Your task to perform on an android device: toggle notifications settings in the gmail app Image 0: 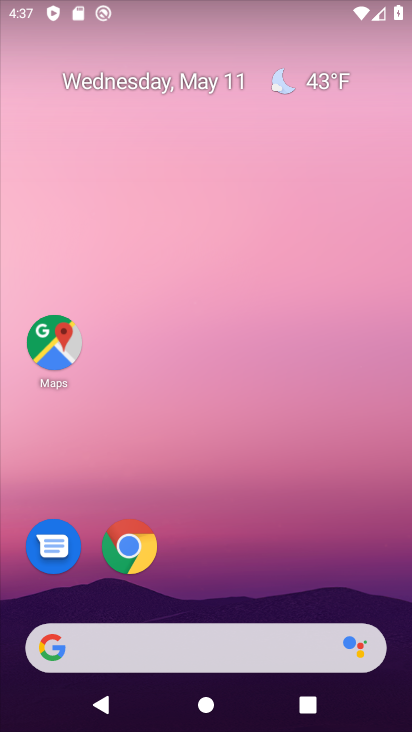
Step 0: press home button
Your task to perform on an android device: toggle notifications settings in the gmail app Image 1: 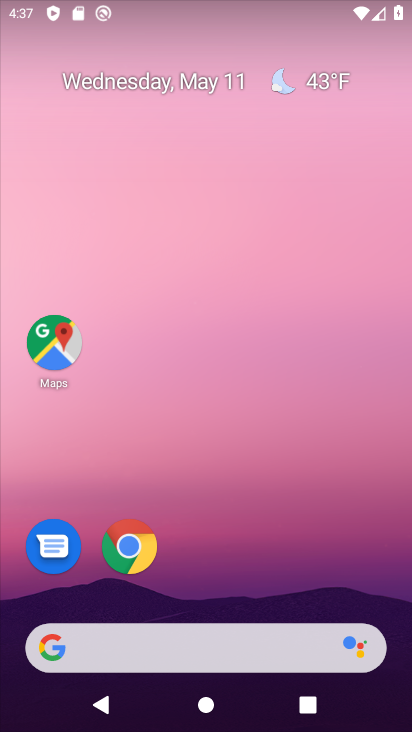
Step 1: drag from (237, 623) to (256, 175)
Your task to perform on an android device: toggle notifications settings in the gmail app Image 2: 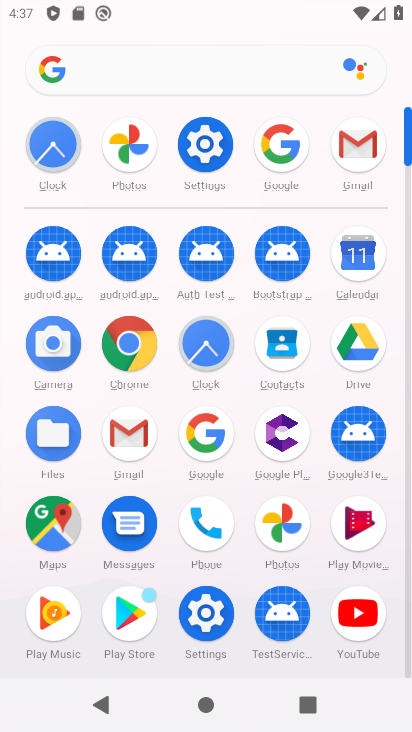
Step 2: click (219, 146)
Your task to perform on an android device: toggle notifications settings in the gmail app Image 3: 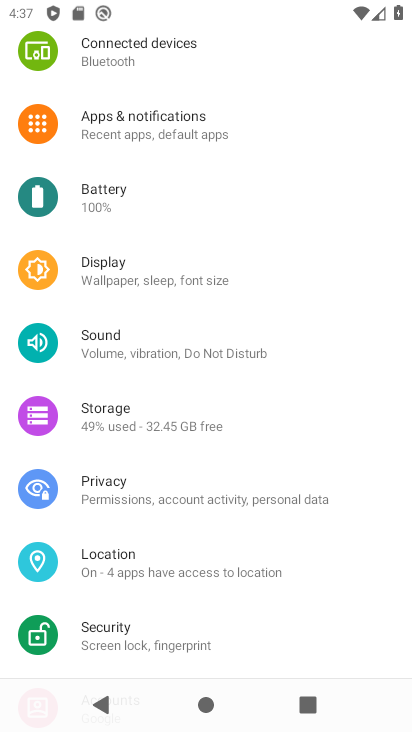
Step 3: press home button
Your task to perform on an android device: toggle notifications settings in the gmail app Image 4: 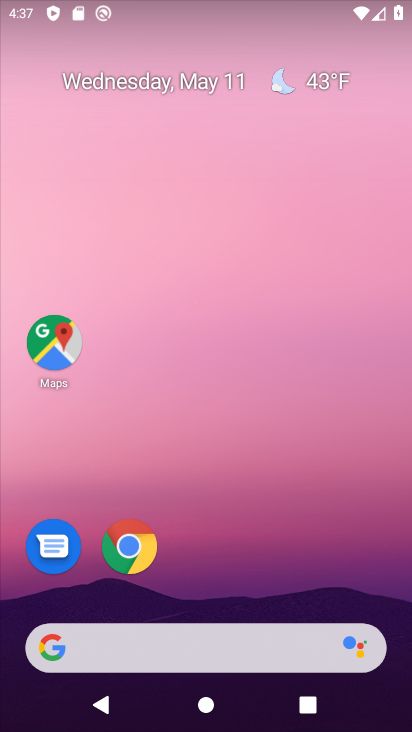
Step 4: drag from (168, 626) to (179, 321)
Your task to perform on an android device: toggle notifications settings in the gmail app Image 5: 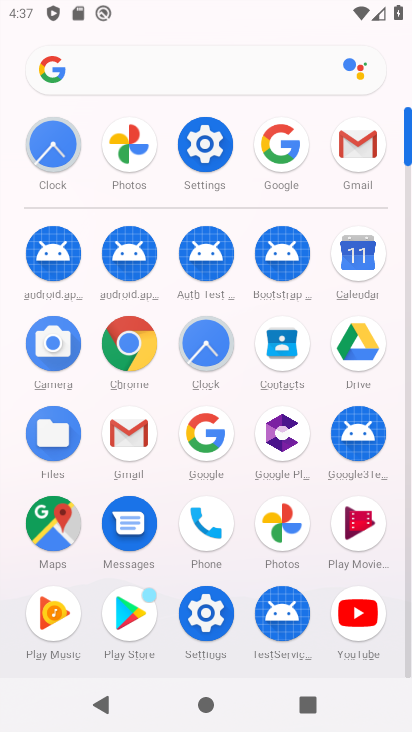
Step 5: click (140, 434)
Your task to perform on an android device: toggle notifications settings in the gmail app Image 6: 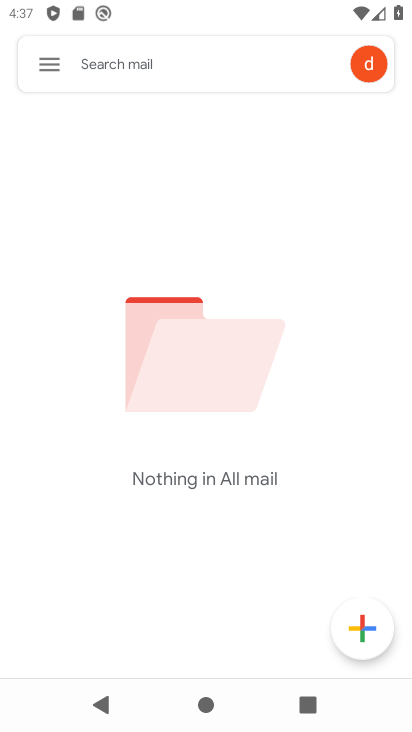
Step 6: click (61, 58)
Your task to perform on an android device: toggle notifications settings in the gmail app Image 7: 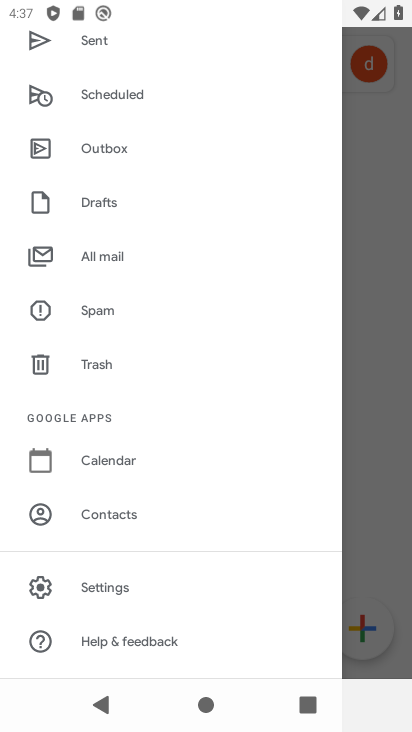
Step 7: click (108, 594)
Your task to perform on an android device: toggle notifications settings in the gmail app Image 8: 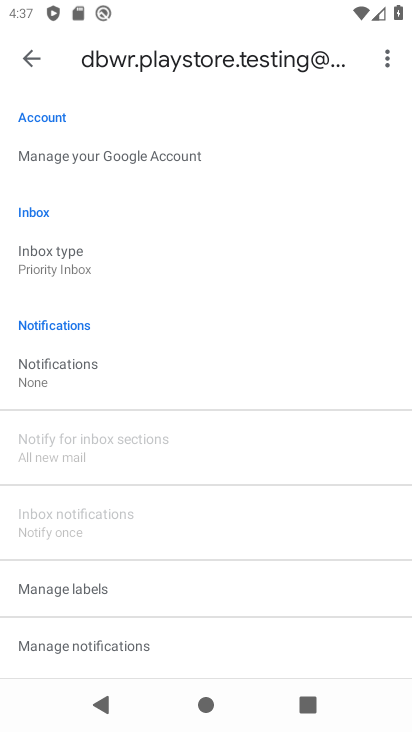
Step 8: click (21, 64)
Your task to perform on an android device: toggle notifications settings in the gmail app Image 9: 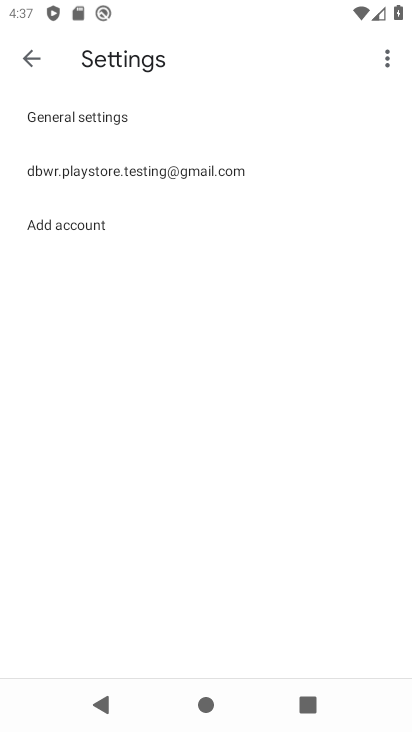
Step 9: click (91, 105)
Your task to perform on an android device: toggle notifications settings in the gmail app Image 10: 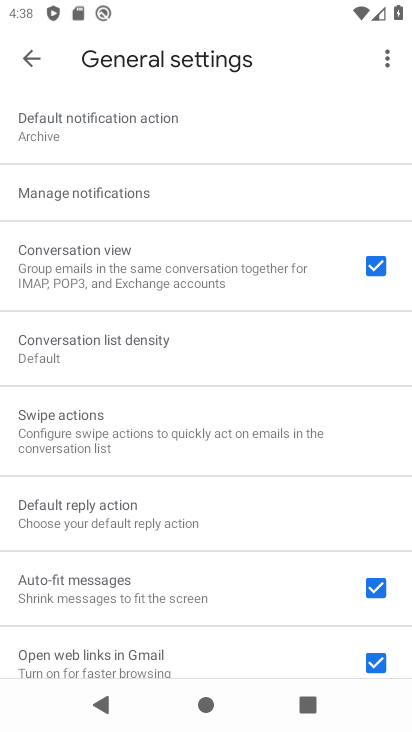
Step 10: click (73, 194)
Your task to perform on an android device: toggle notifications settings in the gmail app Image 11: 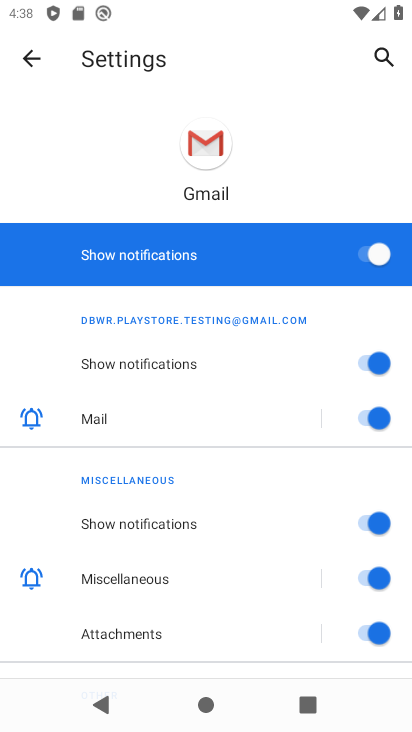
Step 11: click (362, 253)
Your task to perform on an android device: toggle notifications settings in the gmail app Image 12: 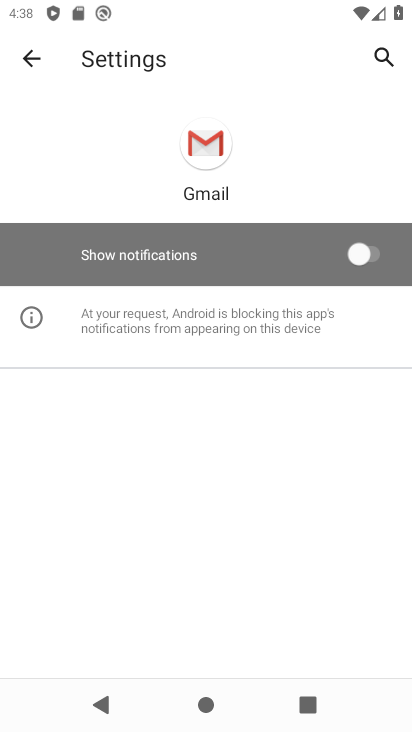
Step 12: task complete